Your task to perform on an android device: change your default location settings in chrome Image 0: 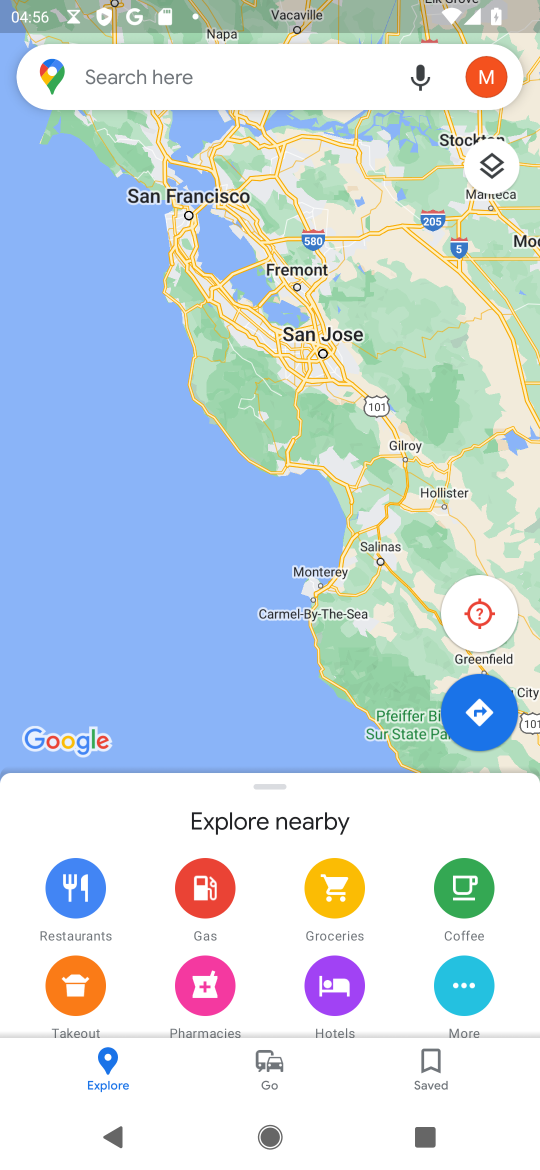
Step 0: press home button
Your task to perform on an android device: change your default location settings in chrome Image 1: 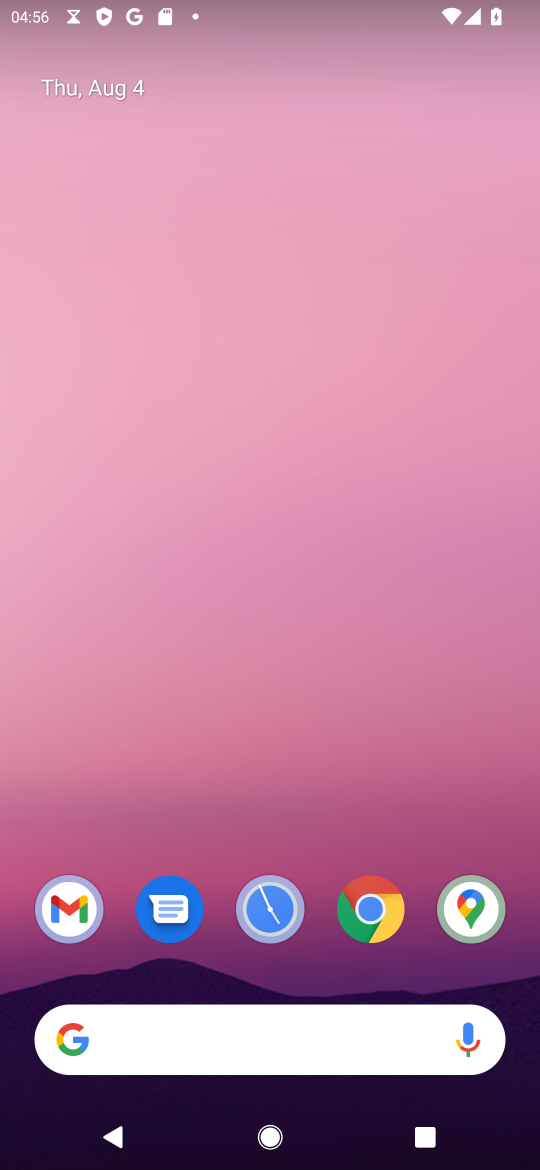
Step 1: click (359, 911)
Your task to perform on an android device: change your default location settings in chrome Image 2: 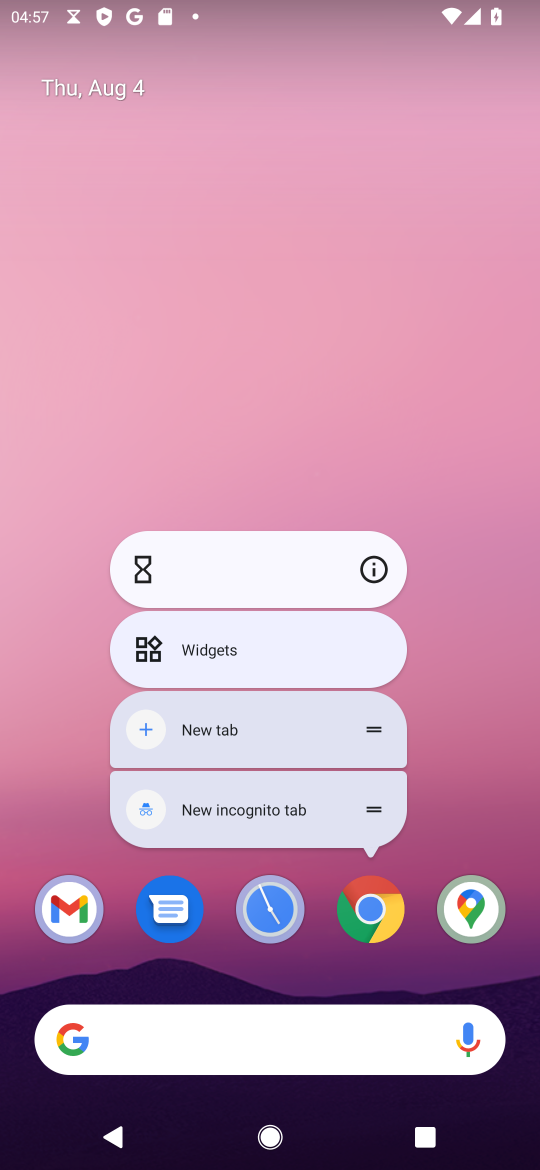
Step 2: click (380, 911)
Your task to perform on an android device: change your default location settings in chrome Image 3: 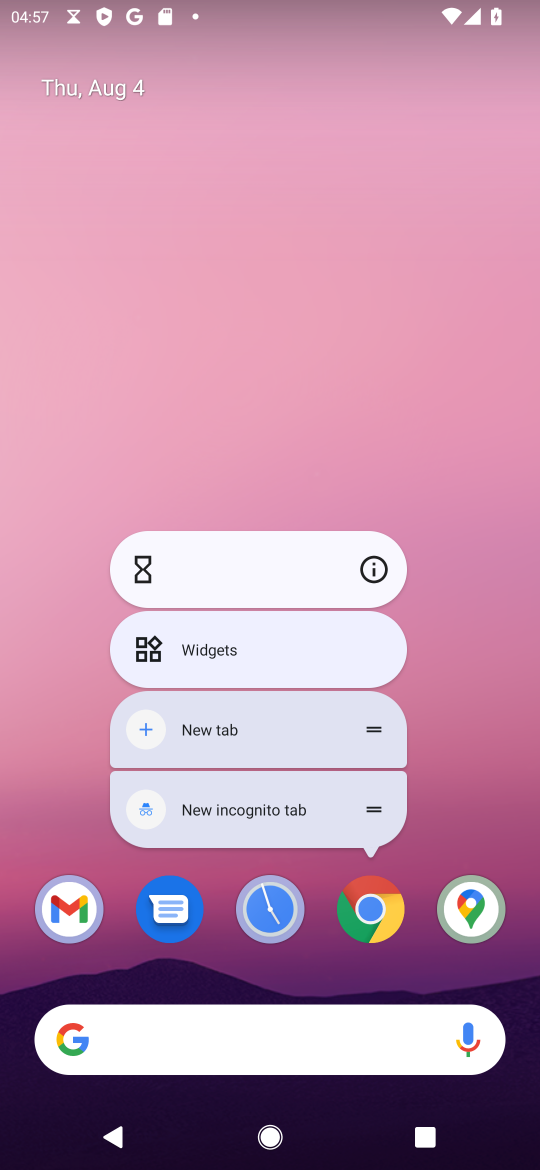
Step 3: click (380, 912)
Your task to perform on an android device: change your default location settings in chrome Image 4: 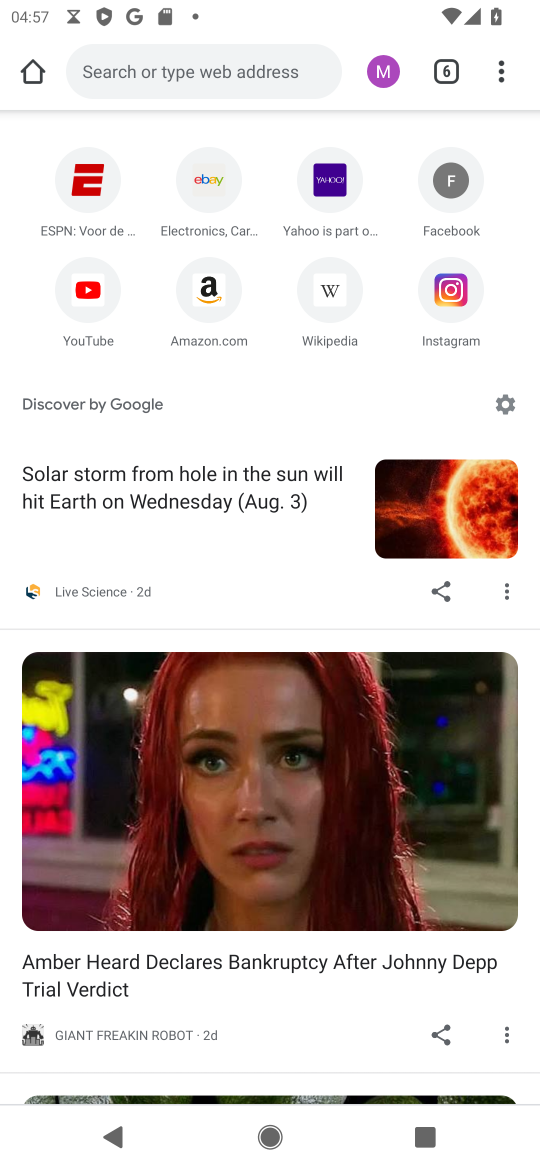
Step 4: drag from (501, 71) to (313, 719)
Your task to perform on an android device: change your default location settings in chrome Image 5: 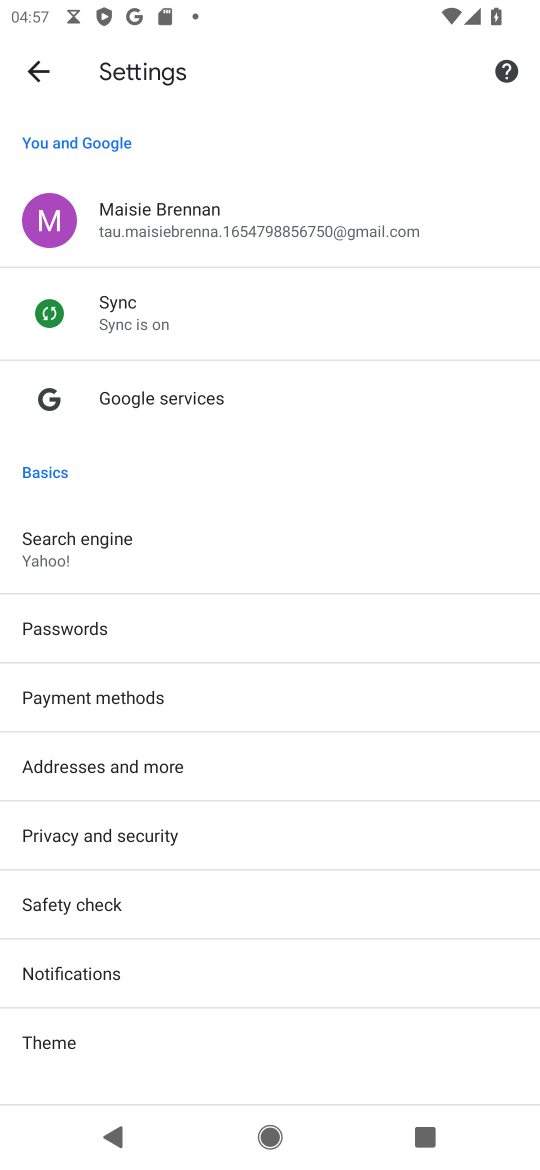
Step 5: drag from (153, 997) to (373, 460)
Your task to perform on an android device: change your default location settings in chrome Image 6: 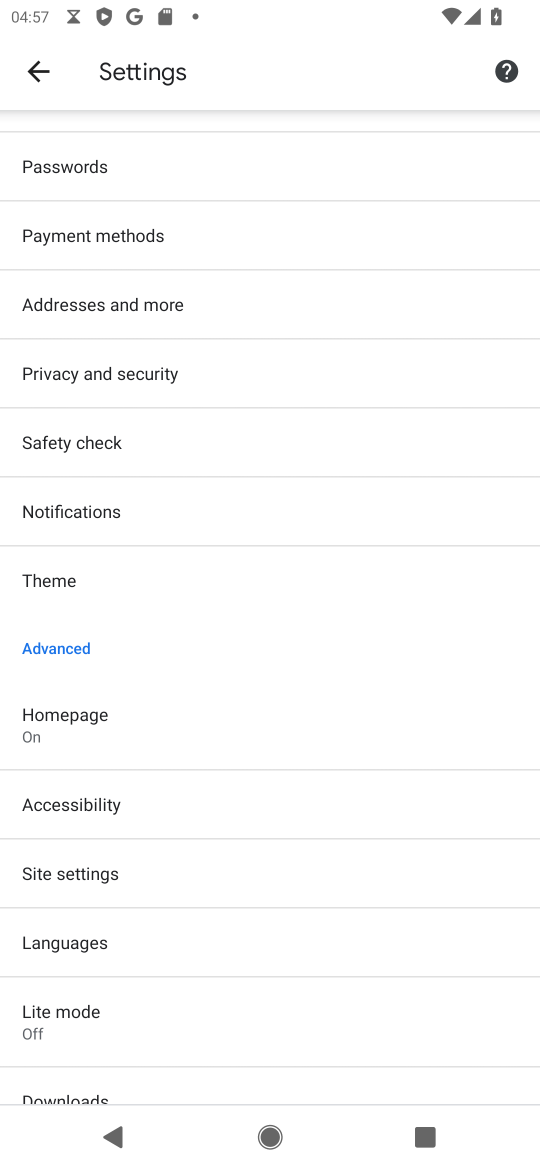
Step 6: click (95, 883)
Your task to perform on an android device: change your default location settings in chrome Image 7: 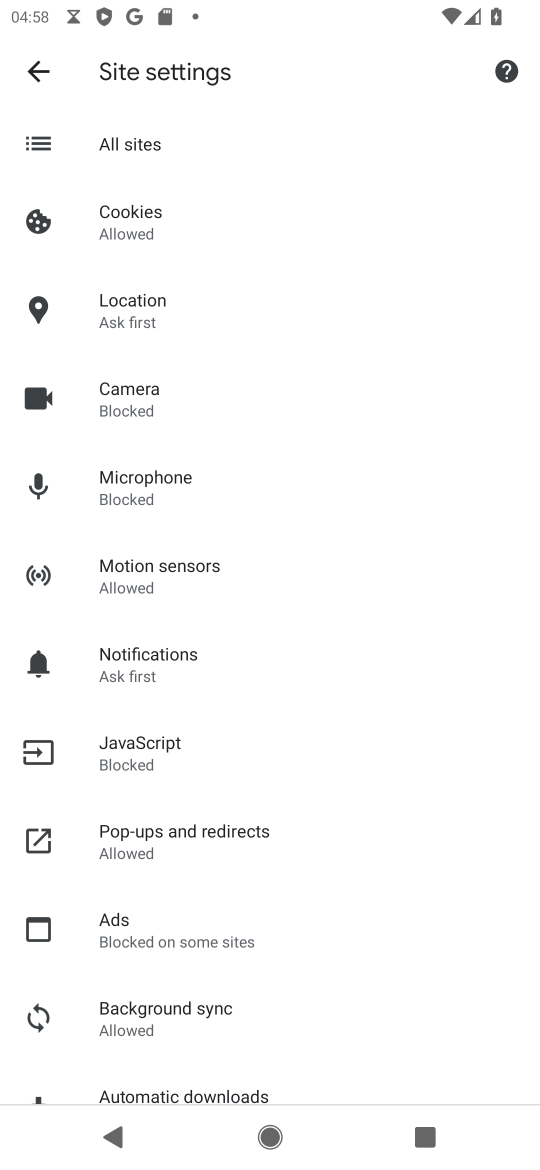
Step 7: click (131, 318)
Your task to perform on an android device: change your default location settings in chrome Image 8: 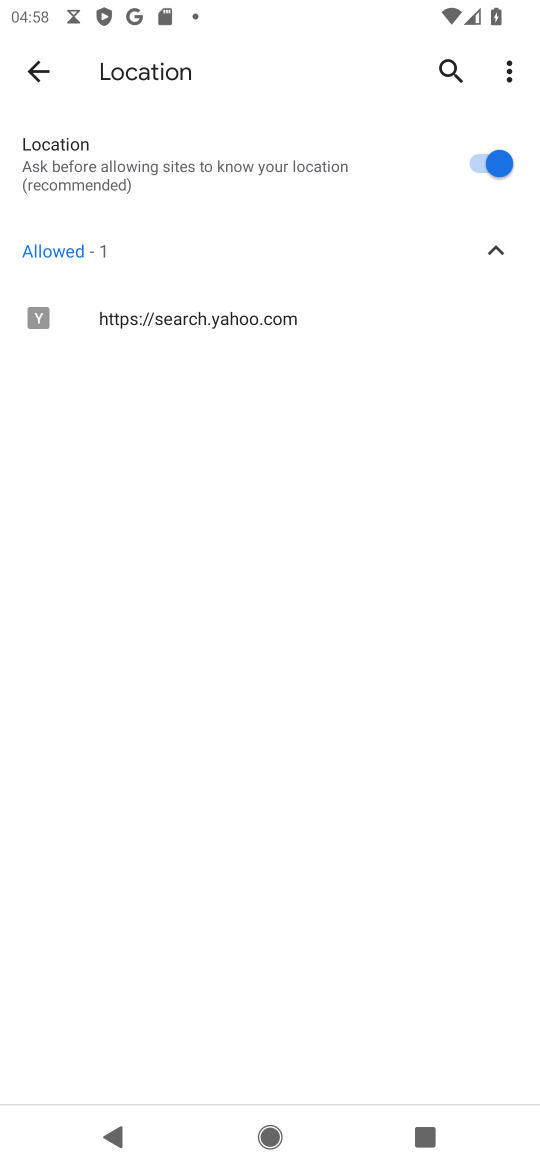
Step 8: click (483, 156)
Your task to perform on an android device: change your default location settings in chrome Image 9: 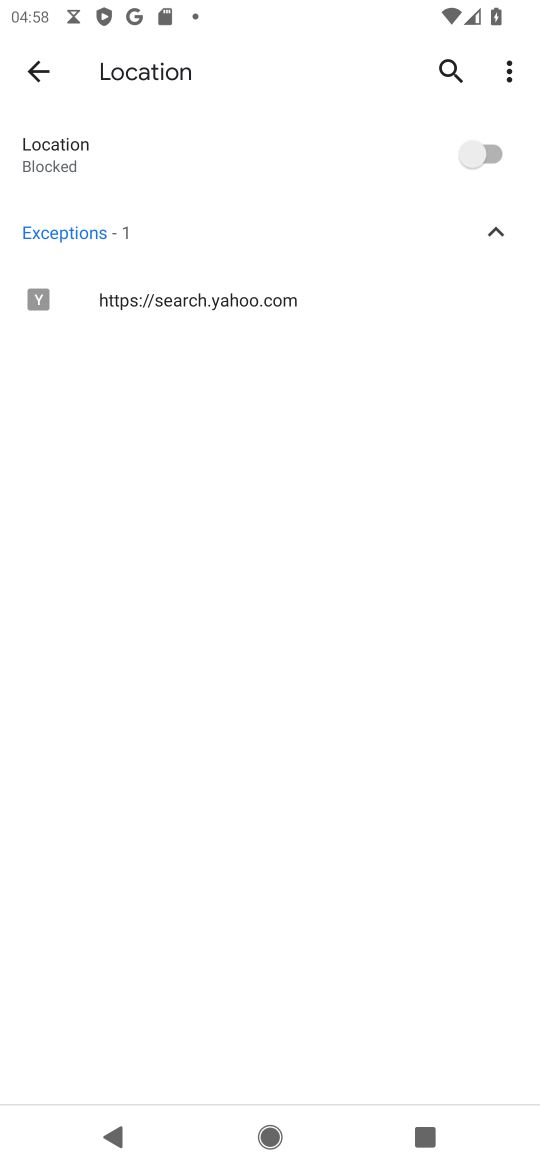
Step 9: task complete